Your task to perform on an android device: move an email to a new category in the gmail app Image 0: 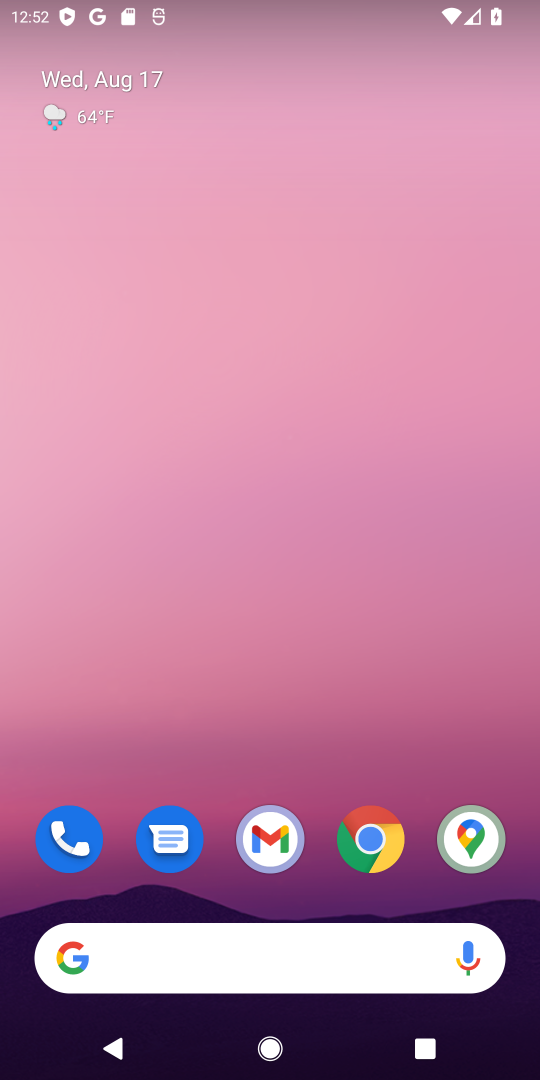
Step 0: drag from (209, 983) to (271, 387)
Your task to perform on an android device: move an email to a new category in the gmail app Image 1: 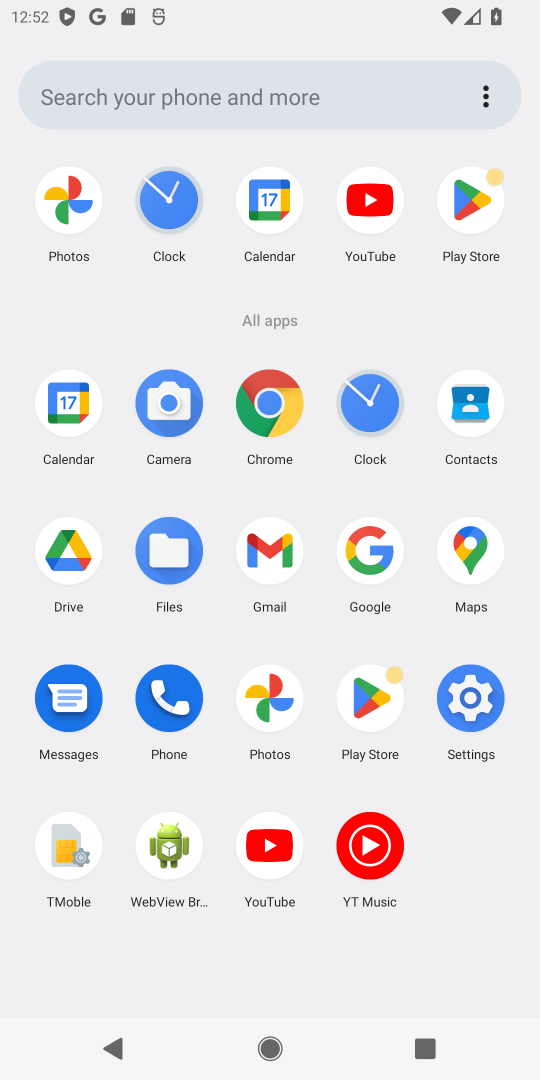
Step 1: click (268, 551)
Your task to perform on an android device: move an email to a new category in the gmail app Image 2: 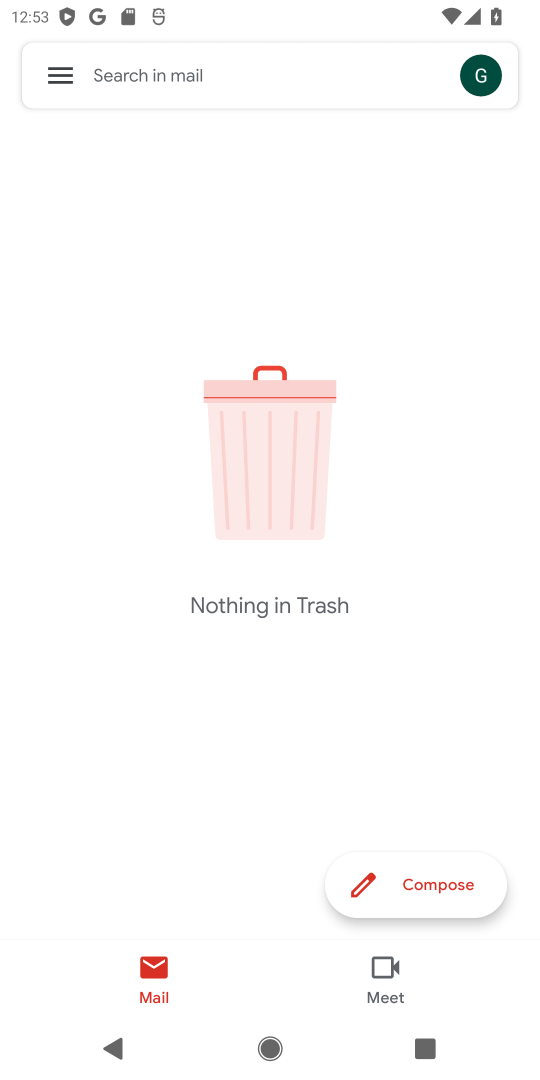
Step 2: click (60, 75)
Your task to perform on an android device: move an email to a new category in the gmail app Image 3: 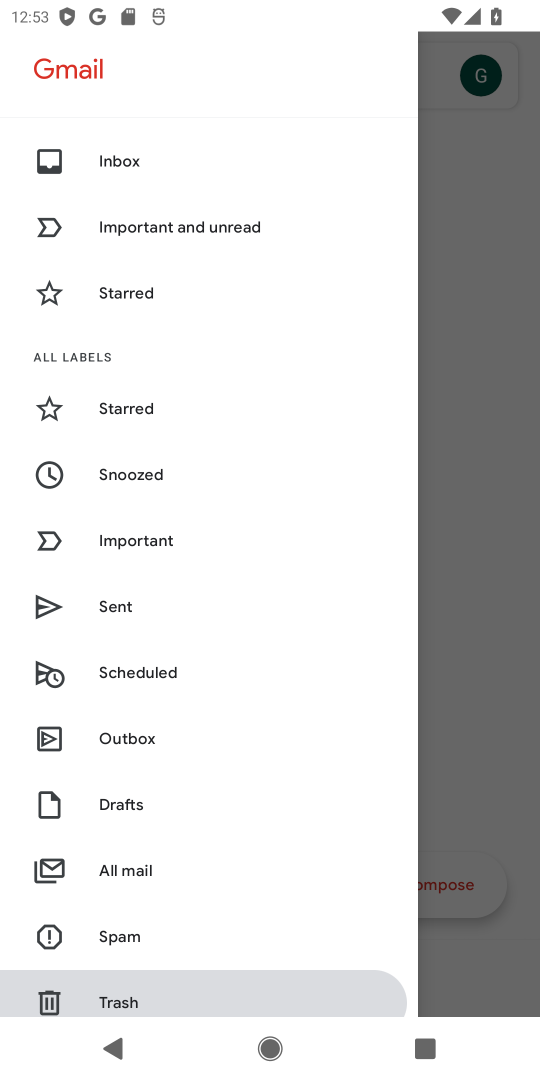
Step 3: click (114, 868)
Your task to perform on an android device: move an email to a new category in the gmail app Image 4: 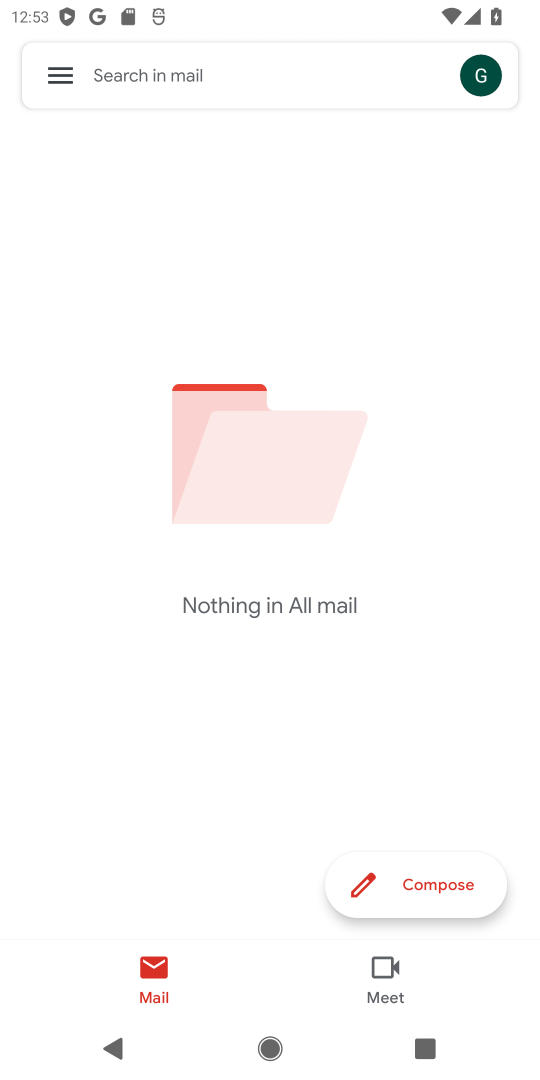
Step 4: click (59, 76)
Your task to perform on an android device: move an email to a new category in the gmail app Image 5: 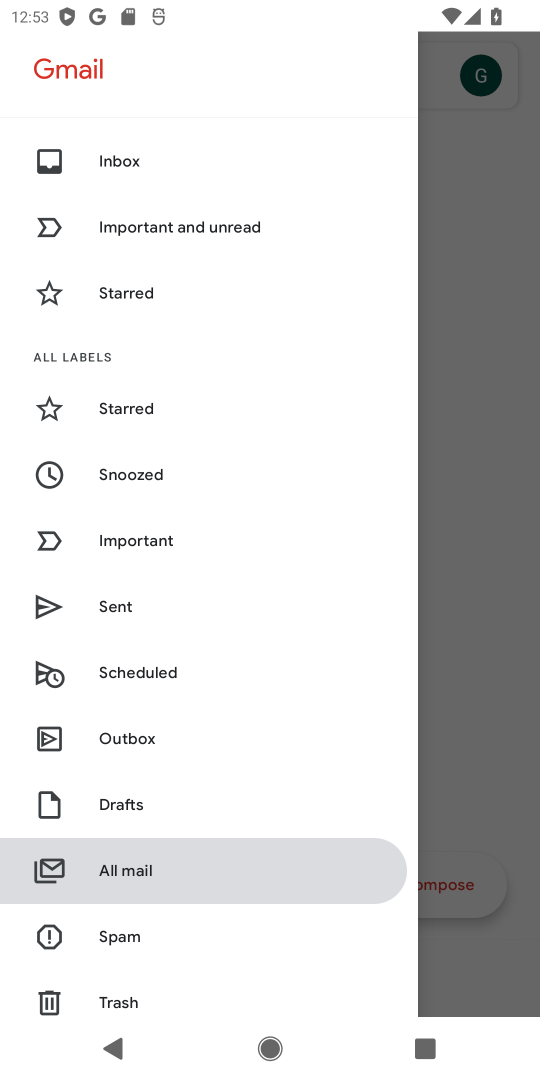
Step 5: click (103, 170)
Your task to perform on an android device: move an email to a new category in the gmail app Image 6: 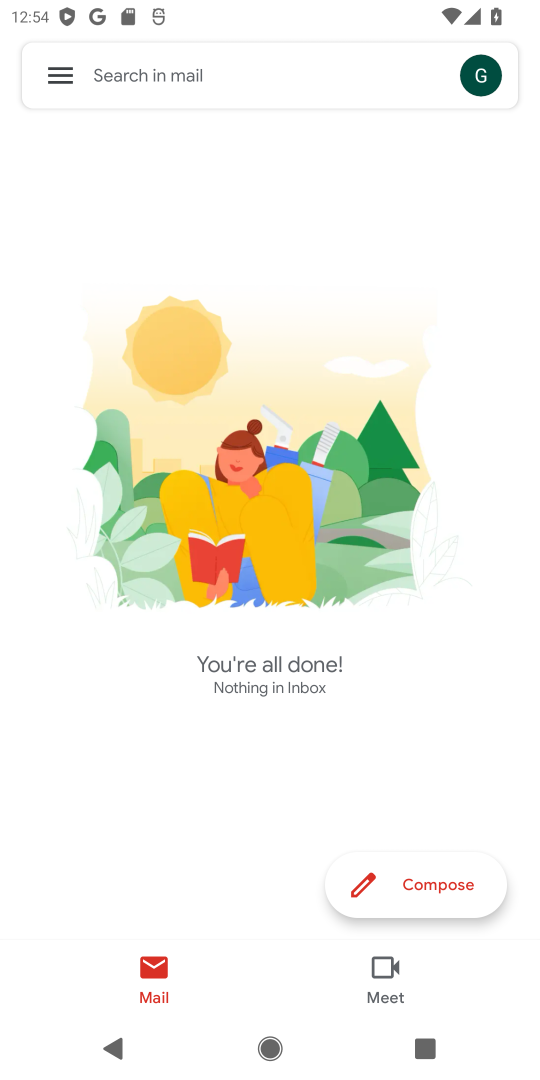
Step 6: click (56, 78)
Your task to perform on an android device: move an email to a new category in the gmail app Image 7: 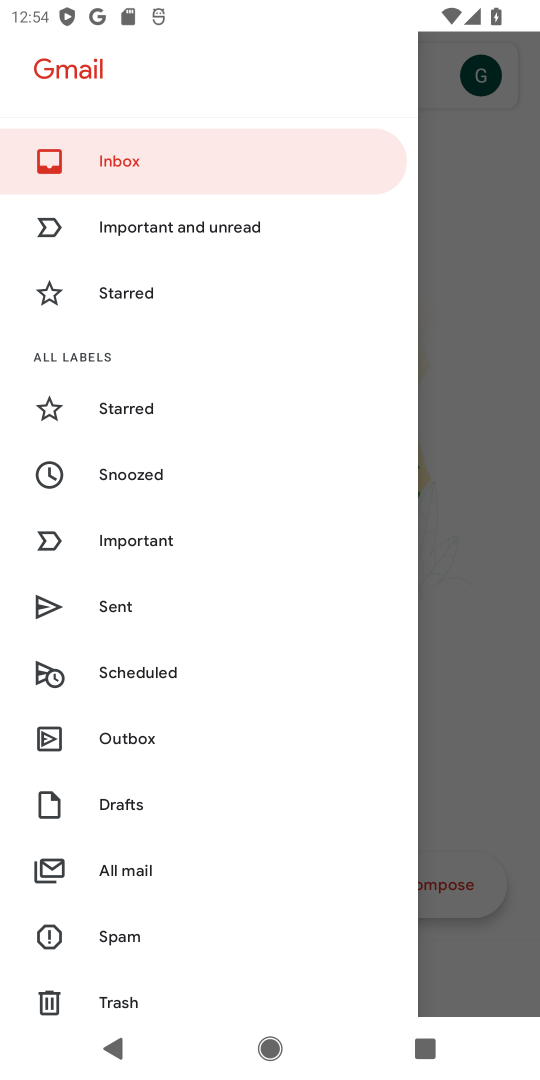
Step 7: task complete